Your task to perform on an android device: check storage Image 0: 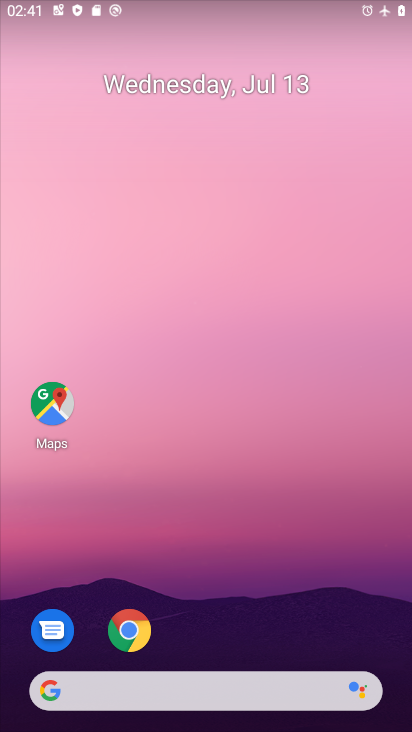
Step 0: drag from (183, 641) to (157, 272)
Your task to perform on an android device: check storage Image 1: 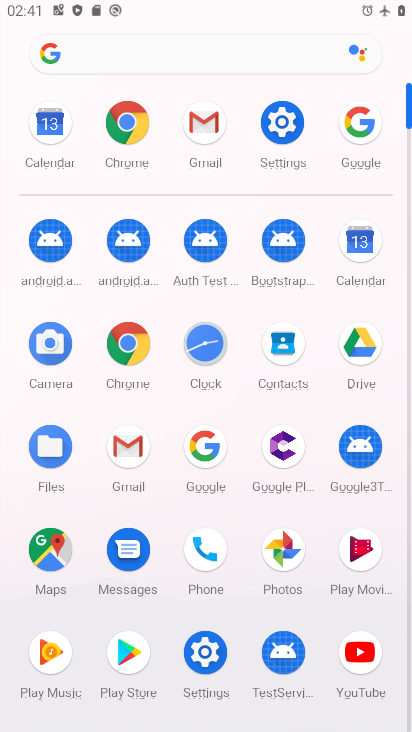
Step 1: click (282, 130)
Your task to perform on an android device: check storage Image 2: 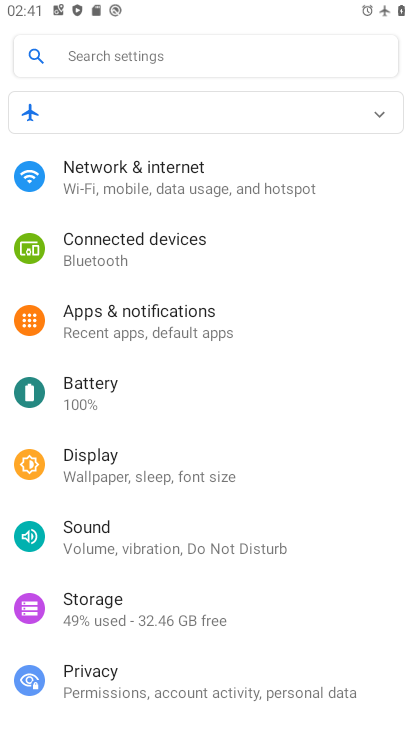
Step 2: click (144, 602)
Your task to perform on an android device: check storage Image 3: 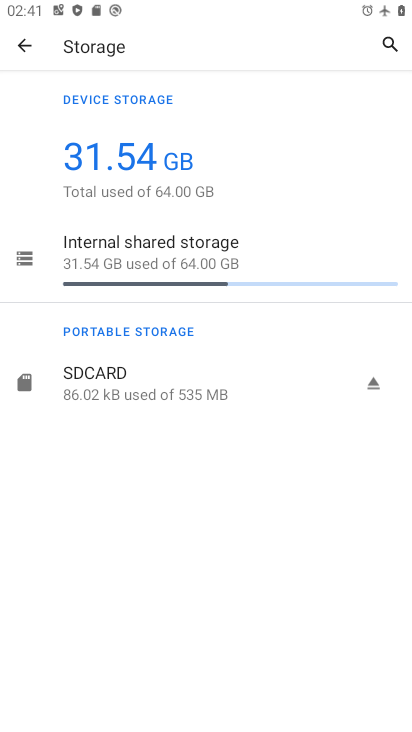
Step 3: task complete